Your task to perform on an android device: Go to eBay Image 0: 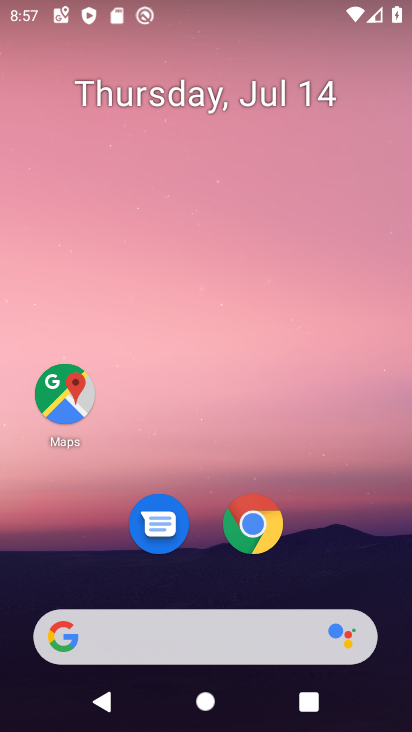
Step 0: click (243, 652)
Your task to perform on an android device: Go to eBay Image 1: 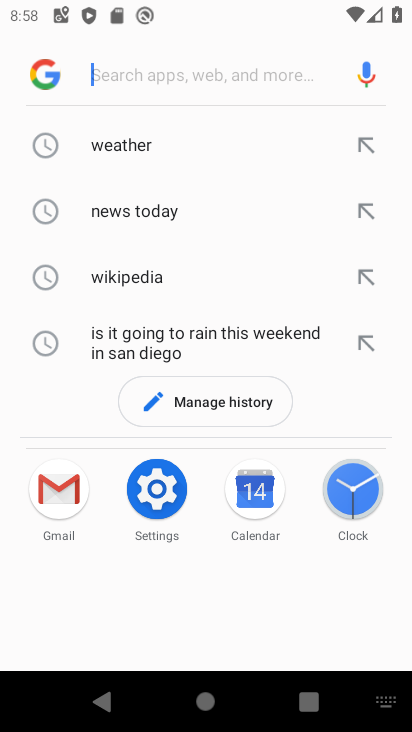
Step 1: type "ebay"
Your task to perform on an android device: Go to eBay Image 2: 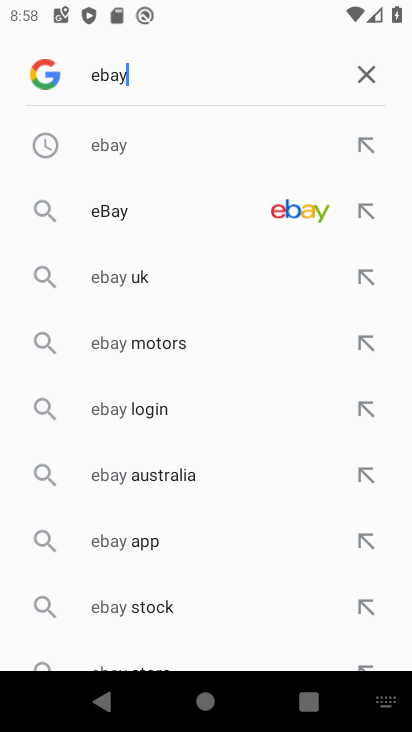
Step 2: click (310, 202)
Your task to perform on an android device: Go to eBay Image 3: 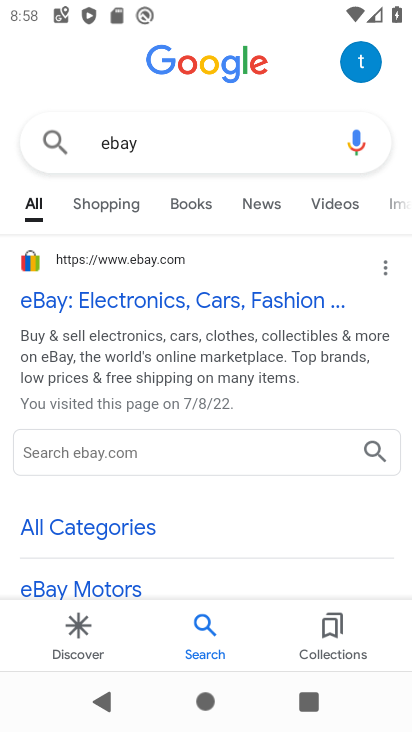
Step 3: click (55, 296)
Your task to perform on an android device: Go to eBay Image 4: 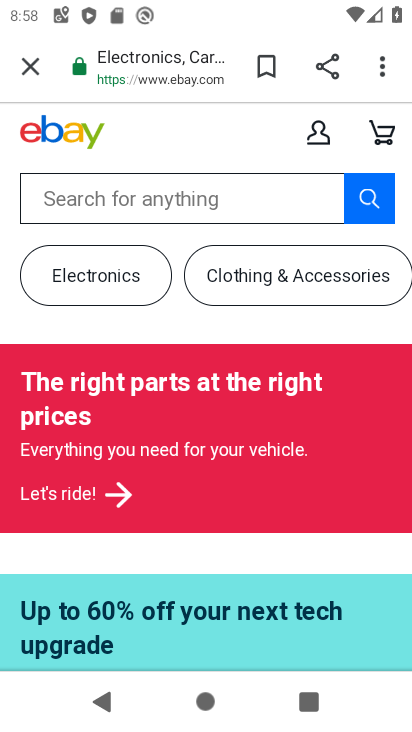
Step 4: task complete